Your task to perform on an android device: toggle wifi Image 0: 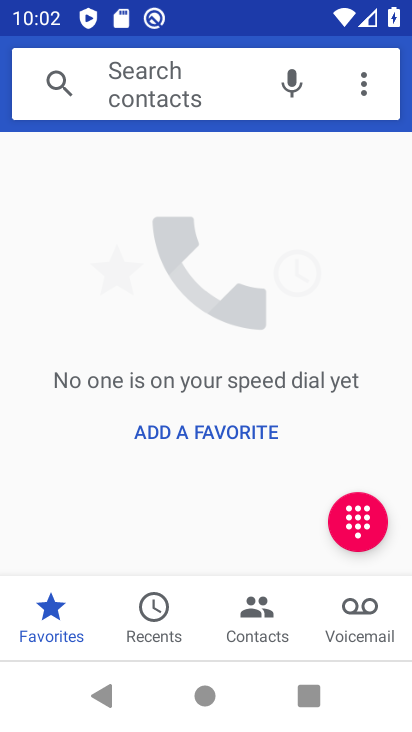
Step 0: press home button
Your task to perform on an android device: toggle wifi Image 1: 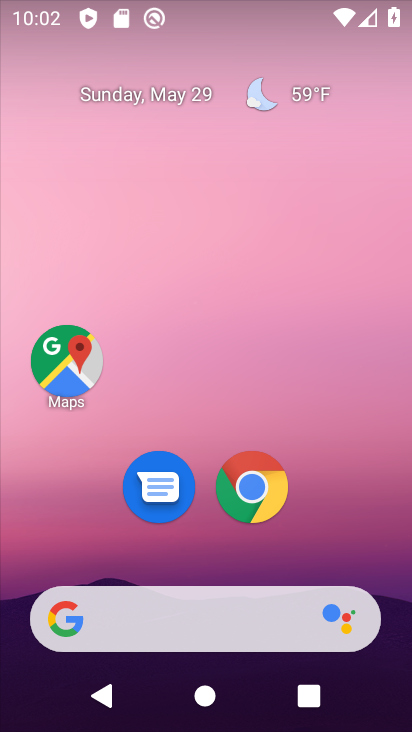
Step 1: drag from (396, 697) to (374, 177)
Your task to perform on an android device: toggle wifi Image 2: 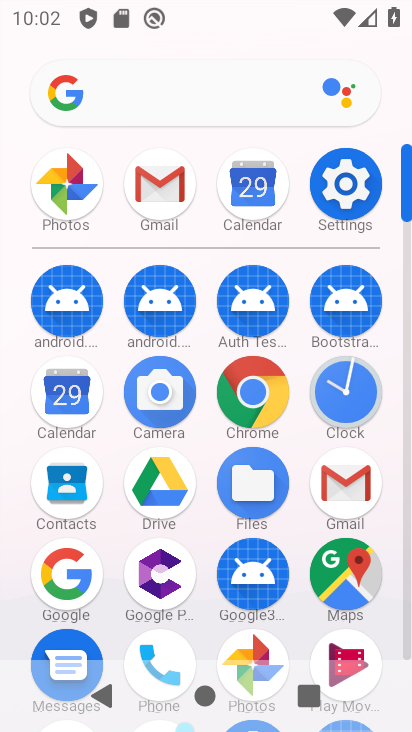
Step 2: click (345, 200)
Your task to perform on an android device: toggle wifi Image 3: 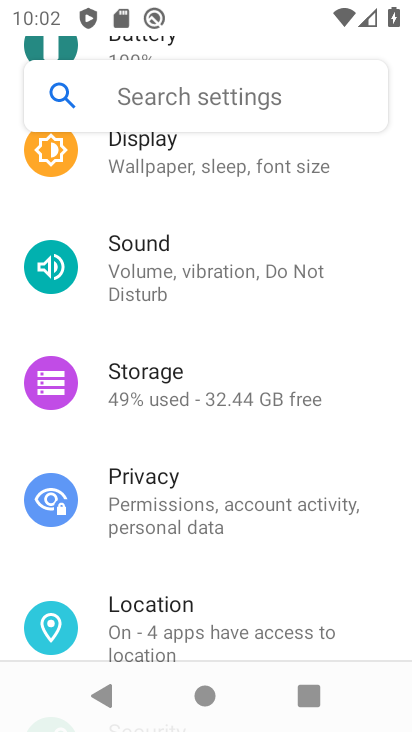
Step 3: drag from (330, 183) to (366, 487)
Your task to perform on an android device: toggle wifi Image 4: 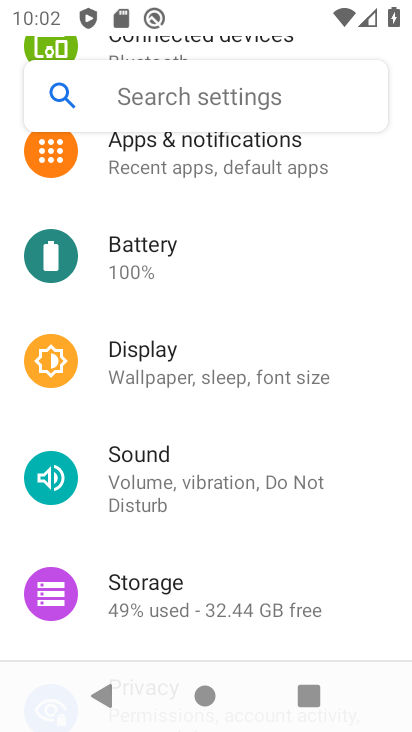
Step 4: drag from (334, 155) to (360, 596)
Your task to perform on an android device: toggle wifi Image 5: 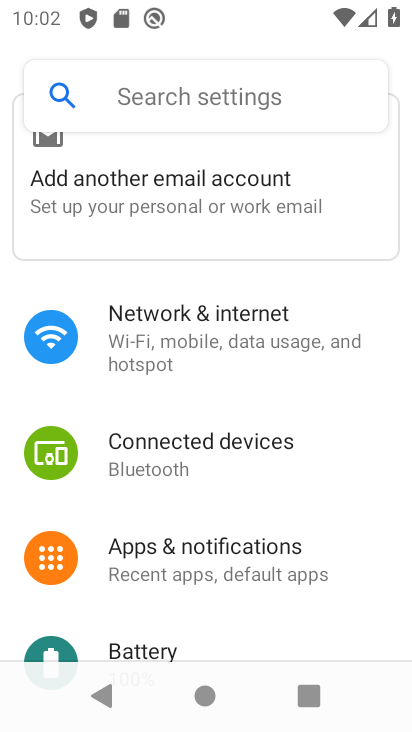
Step 5: click (170, 338)
Your task to perform on an android device: toggle wifi Image 6: 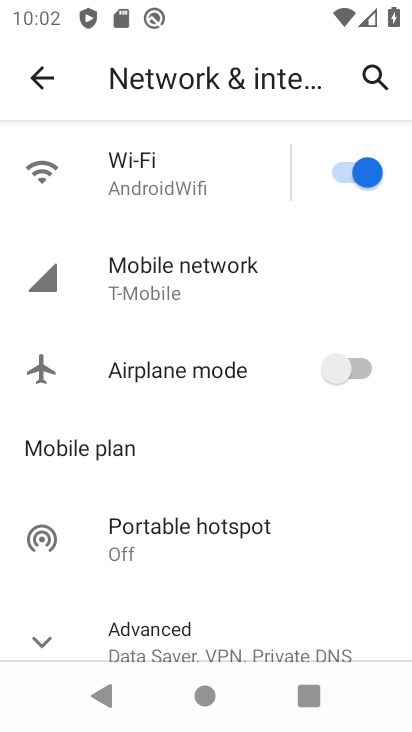
Step 6: click (343, 167)
Your task to perform on an android device: toggle wifi Image 7: 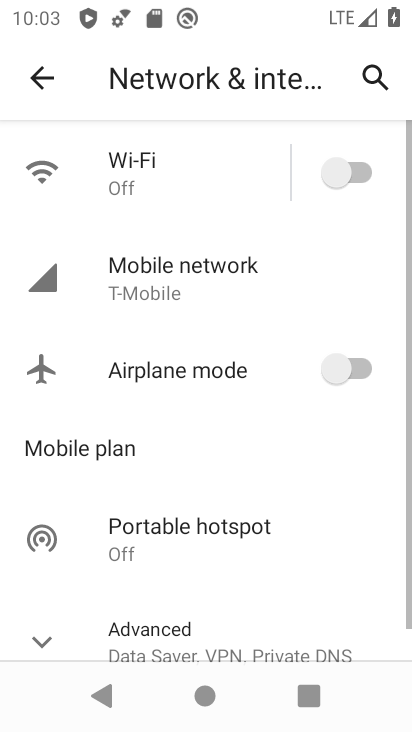
Step 7: task complete